Your task to perform on an android device: turn on data saver in the chrome app Image 0: 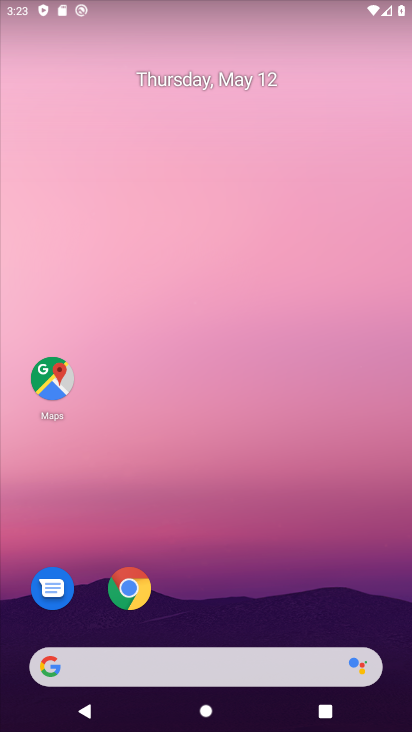
Step 0: click (138, 592)
Your task to perform on an android device: turn on data saver in the chrome app Image 1: 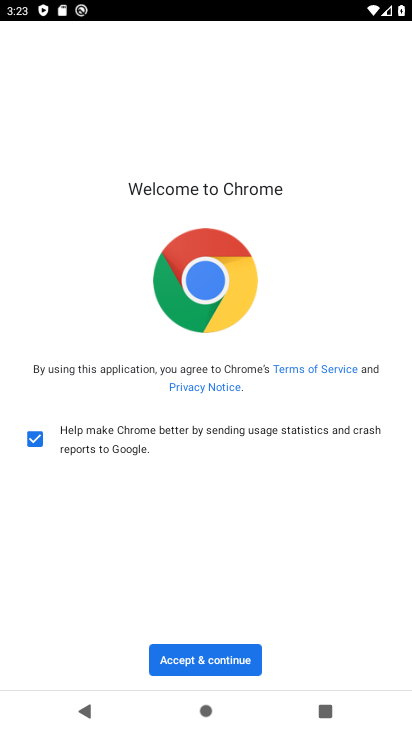
Step 1: click (222, 668)
Your task to perform on an android device: turn on data saver in the chrome app Image 2: 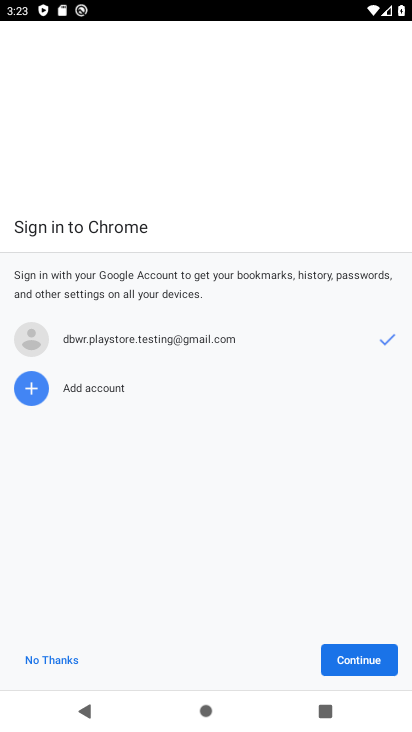
Step 2: click (389, 667)
Your task to perform on an android device: turn on data saver in the chrome app Image 3: 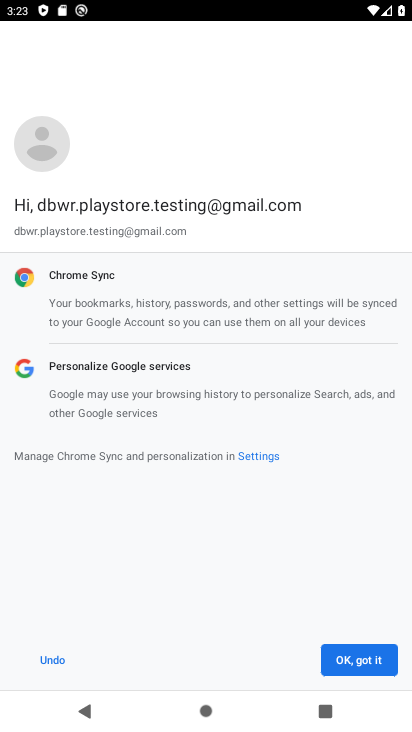
Step 3: click (374, 667)
Your task to perform on an android device: turn on data saver in the chrome app Image 4: 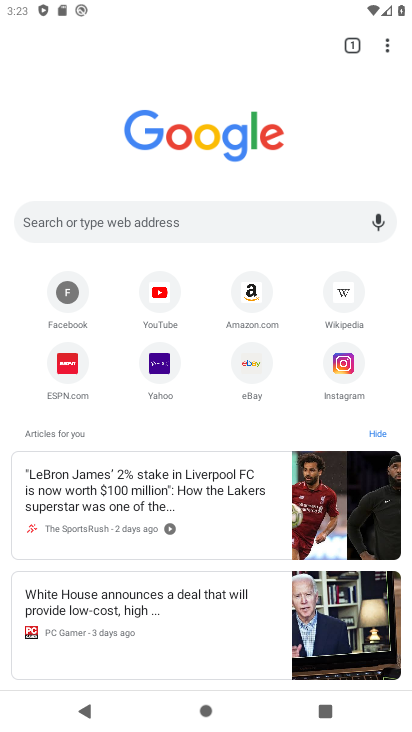
Step 4: drag from (380, 50) to (311, 371)
Your task to perform on an android device: turn on data saver in the chrome app Image 5: 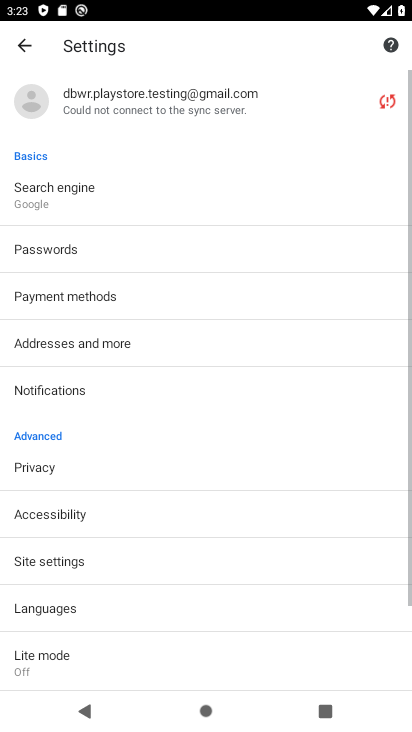
Step 5: drag from (129, 673) to (266, 268)
Your task to perform on an android device: turn on data saver in the chrome app Image 6: 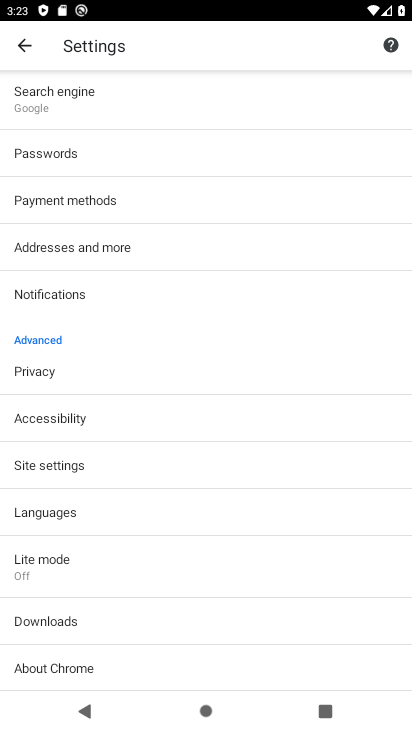
Step 6: click (95, 574)
Your task to perform on an android device: turn on data saver in the chrome app Image 7: 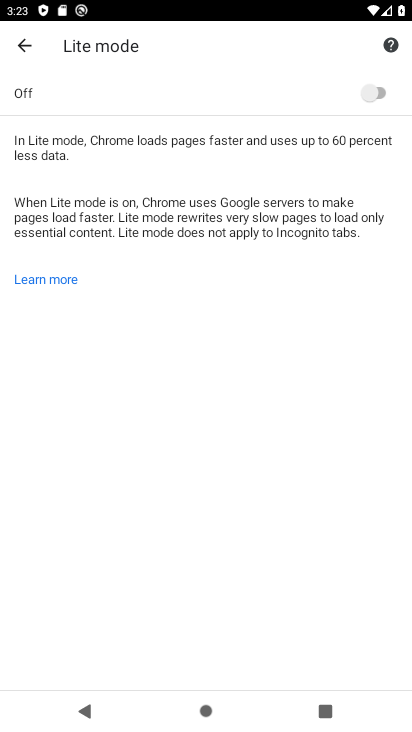
Step 7: click (394, 87)
Your task to perform on an android device: turn on data saver in the chrome app Image 8: 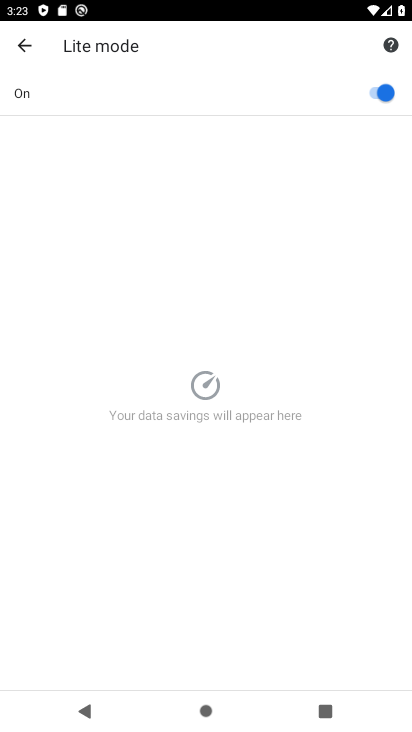
Step 8: task complete